Your task to perform on an android device: Open display settings Image 0: 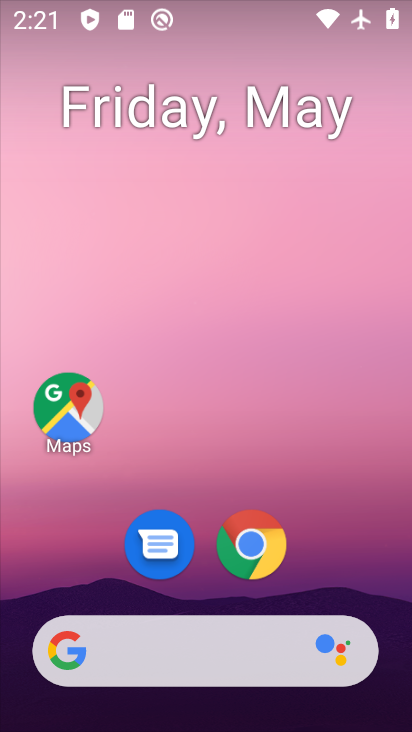
Step 0: drag from (202, 581) to (295, 24)
Your task to perform on an android device: Open display settings Image 1: 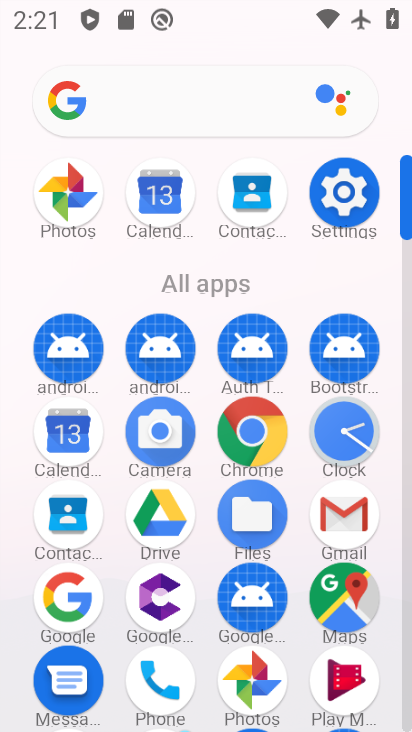
Step 1: click (349, 195)
Your task to perform on an android device: Open display settings Image 2: 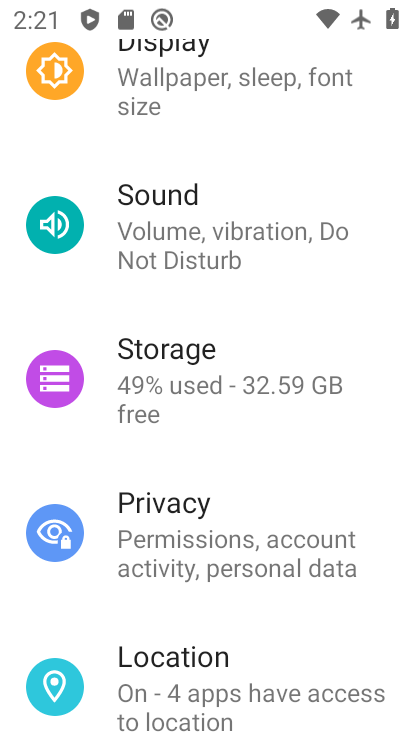
Step 2: click (187, 94)
Your task to perform on an android device: Open display settings Image 3: 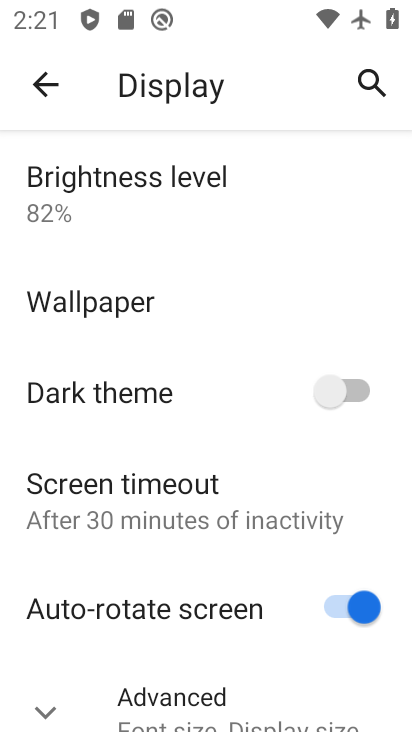
Step 3: task complete